Your task to perform on an android device: Go to Google maps Image 0: 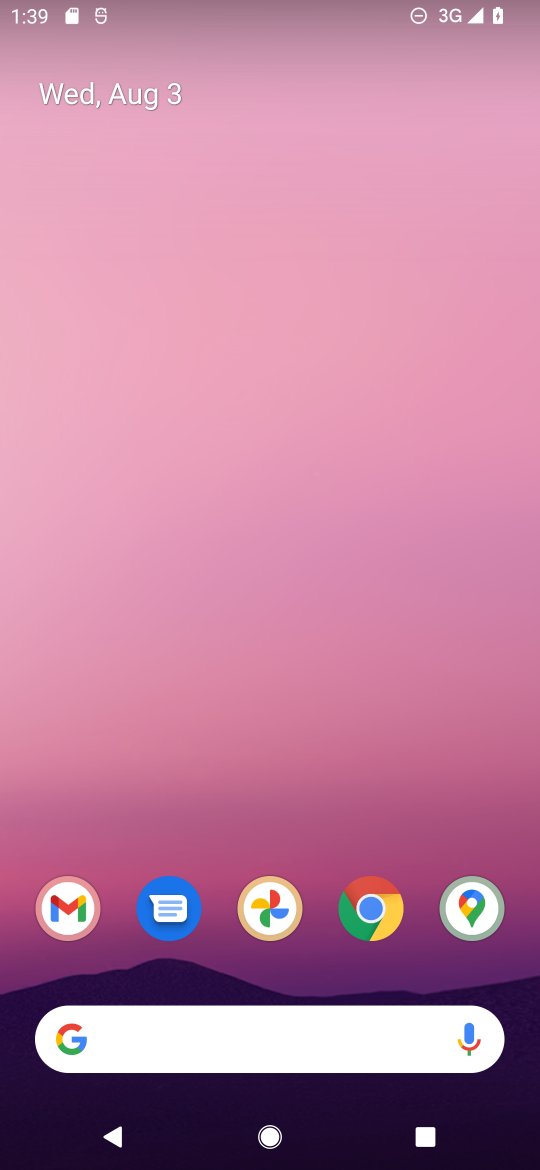
Step 0: drag from (224, 905) to (293, 120)
Your task to perform on an android device: Go to Google maps Image 1: 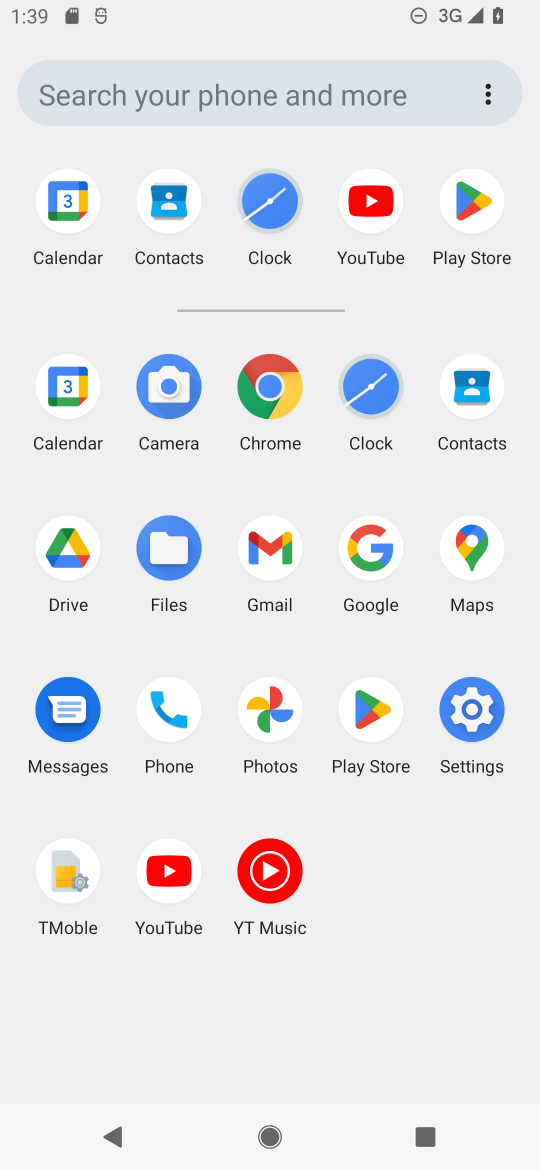
Step 1: click (460, 568)
Your task to perform on an android device: Go to Google maps Image 2: 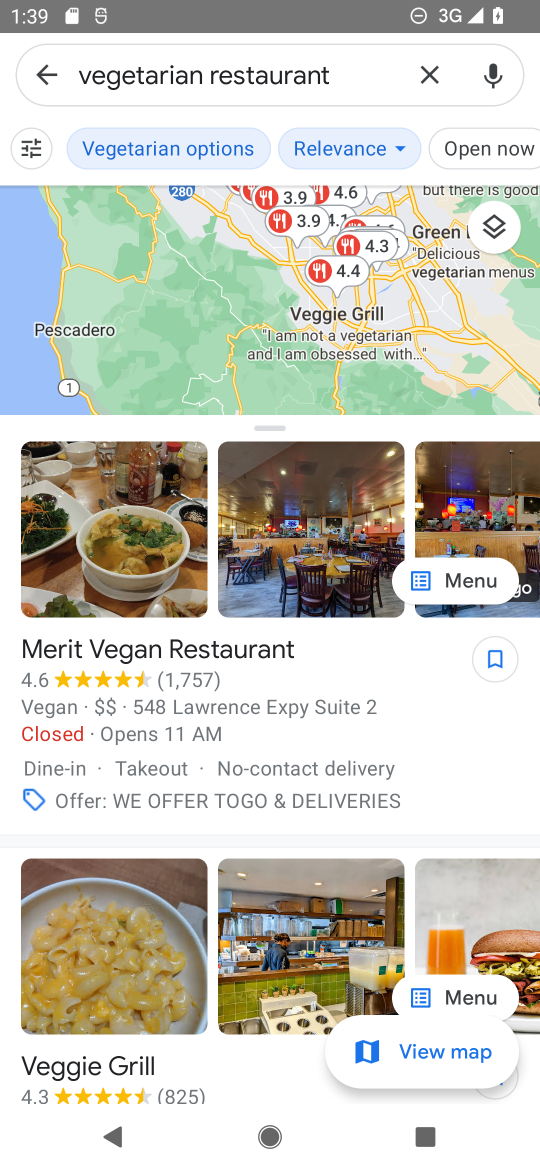
Step 2: task complete